Your task to perform on an android device: turn smart compose on in the gmail app Image 0: 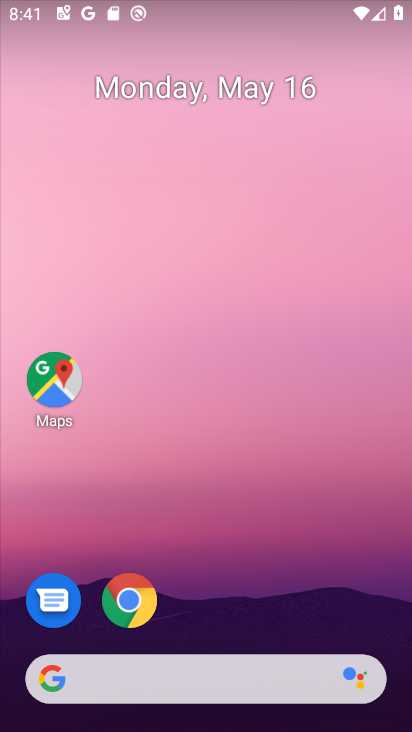
Step 0: drag from (294, 593) to (69, 117)
Your task to perform on an android device: turn smart compose on in the gmail app Image 1: 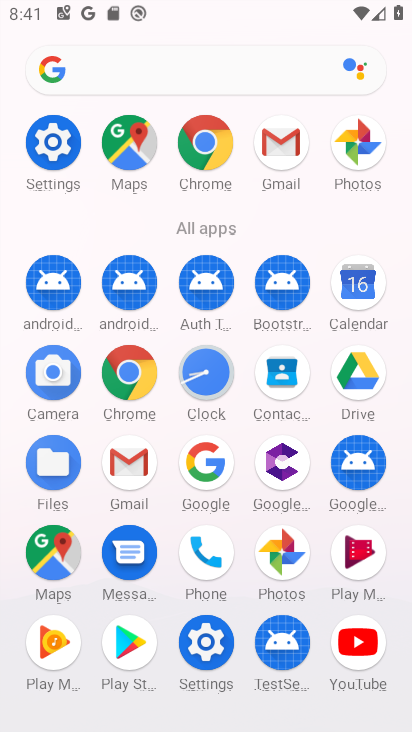
Step 1: click (106, 451)
Your task to perform on an android device: turn smart compose on in the gmail app Image 2: 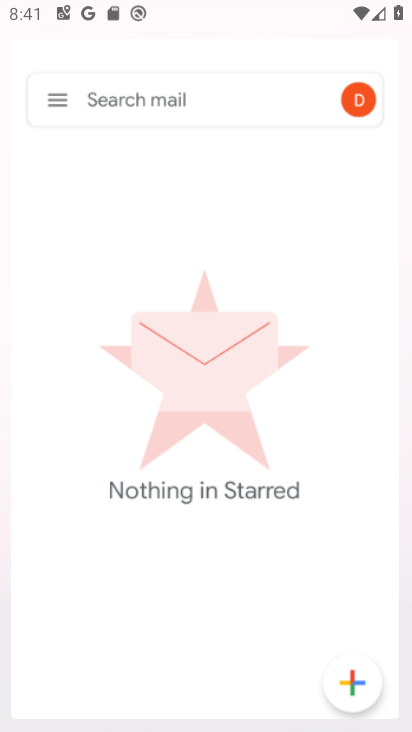
Step 2: click (106, 451)
Your task to perform on an android device: turn smart compose on in the gmail app Image 3: 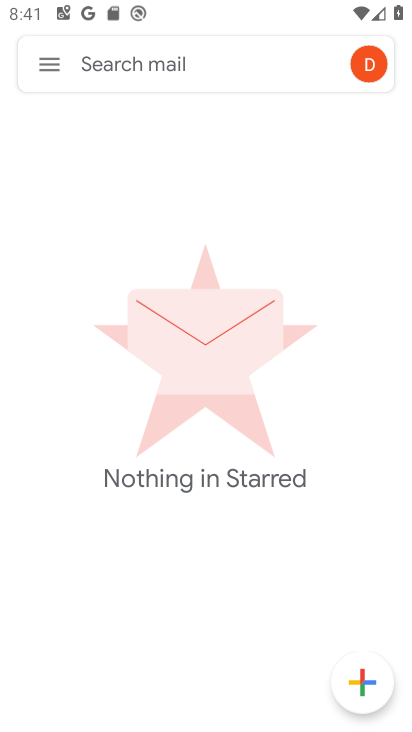
Step 3: click (47, 71)
Your task to perform on an android device: turn smart compose on in the gmail app Image 4: 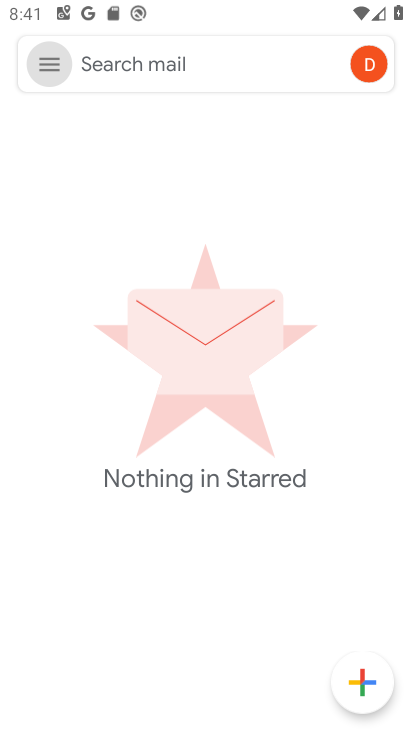
Step 4: click (48, 74)
Your task to perform on an android device: turn smart compose on in the gmail app Image 5: 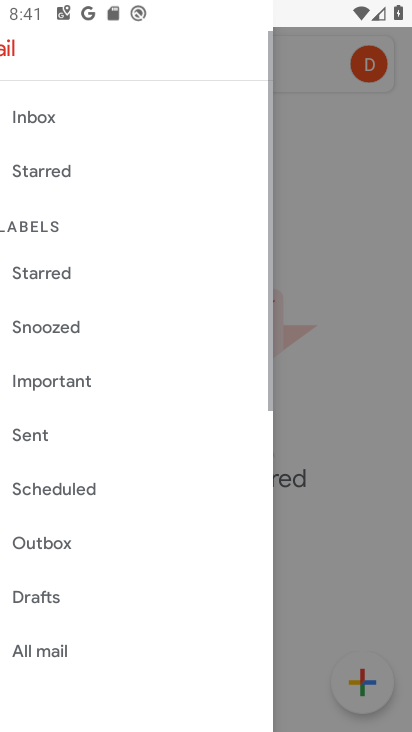
Step 5: click (48, 74)
Your task to perform on an android device: turn smart compose on in the gmail app Image 6: 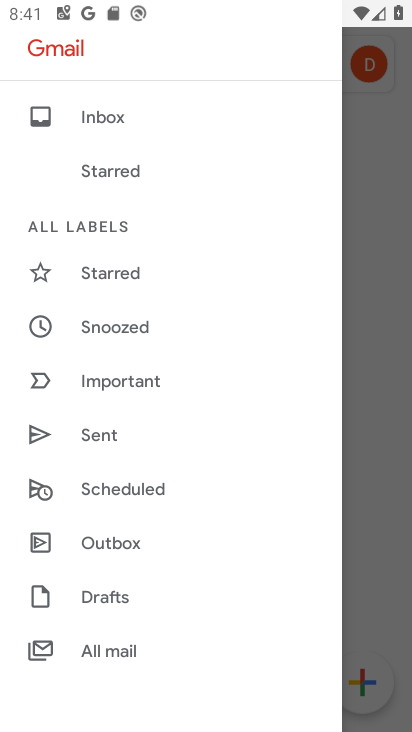
Step 6: drag from (156, 529) to (133, 27)
Your task to perform on an android device: turn smart compose on in the gmail app Image 7: 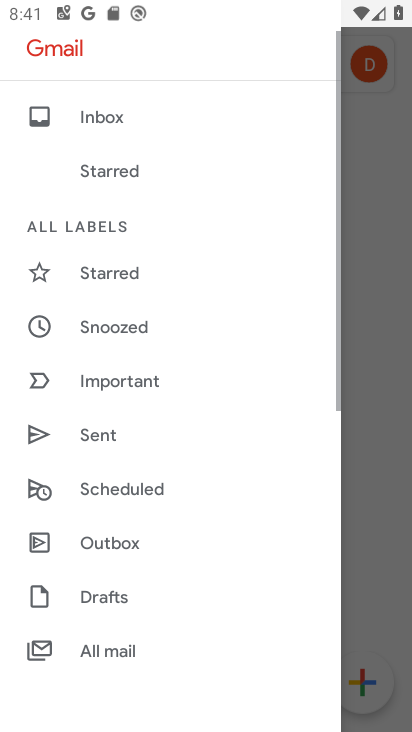
Step 7: drag from (110, 603) to (162, 55)
Your task to perform on an android device: turn smart compose on in the gmail app Image 8: 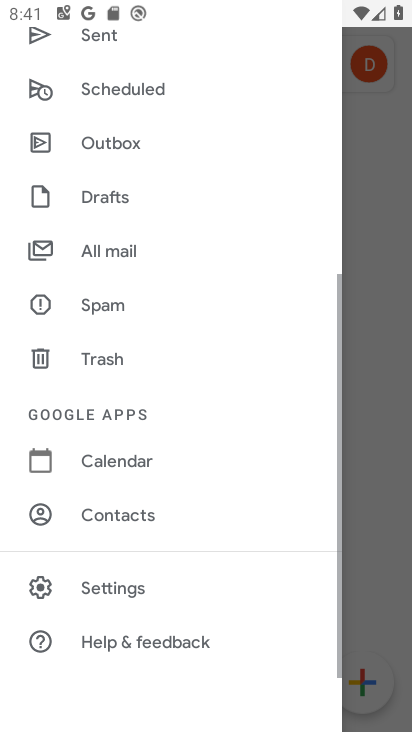
Step 8: drag from (209, 502) to (243, 16)
Your task to perform on an android device: turn smart compose on in the gmail app Image 9: 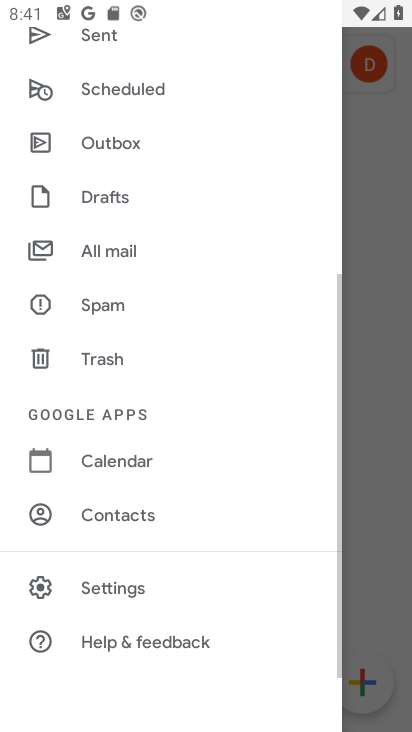
Step 9: click (92, 583)
Your task to perform on an android device: turn smart compose on in the gmail app Image 10: 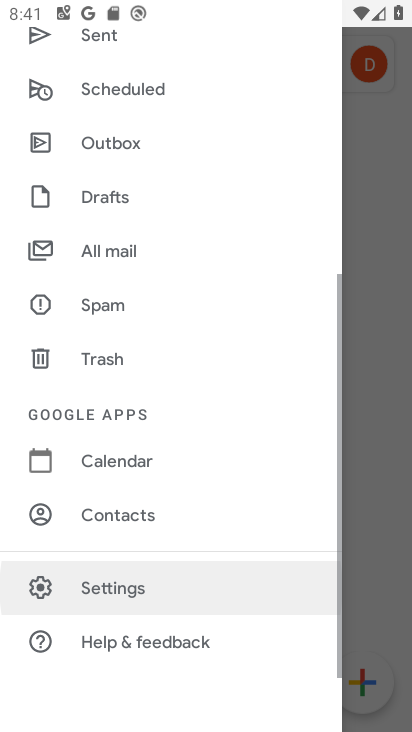
Step 10: click (109, 570)
Your task to perform on an android device: turn smart compose on in the gmail app Image 11: 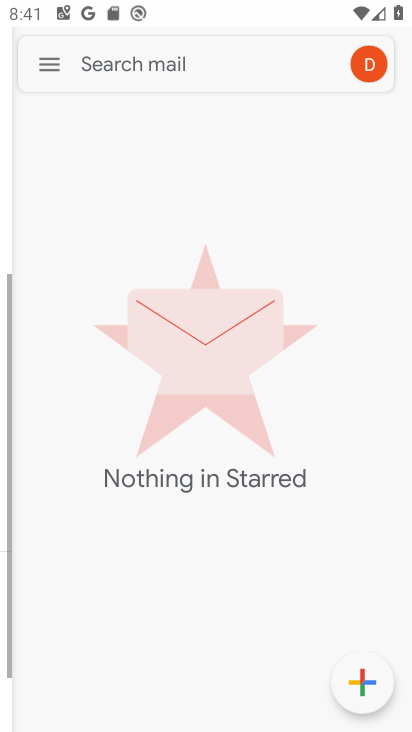
Step 11: click (118, 562)
Your task to perform on an android device: turn smart compose on in the gmail app Image 12: 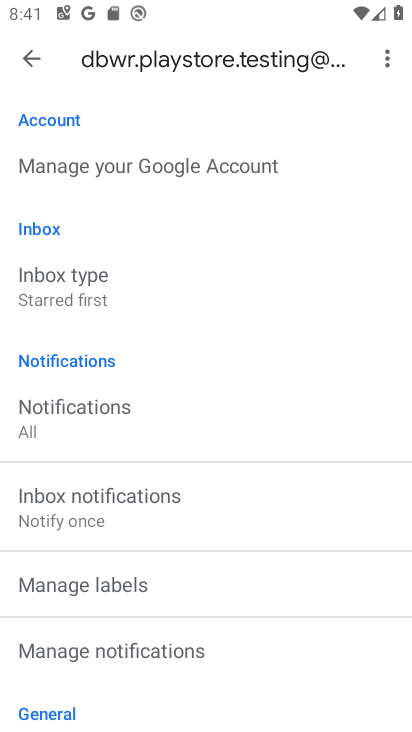
Step 12: task complete